Your task to perform on an android device: toggle show notifications on the lock screen Image 0: 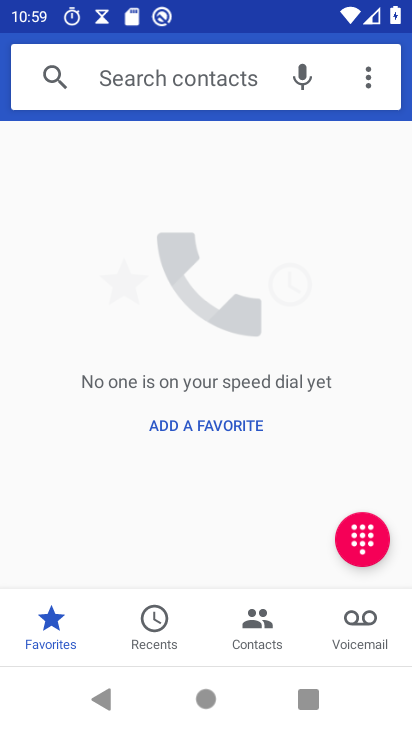
Step 0: press home button
Your task to perform on an android device: toggle show notifications on the lock screen Image 1: 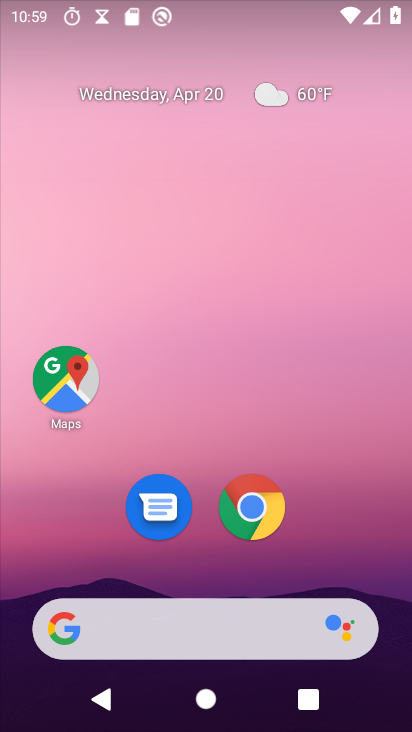
Step 1: drag from (225, 593) to (274, 110)
Your task to perform on an android device: toggle show notifications on the lock screen Image 2: 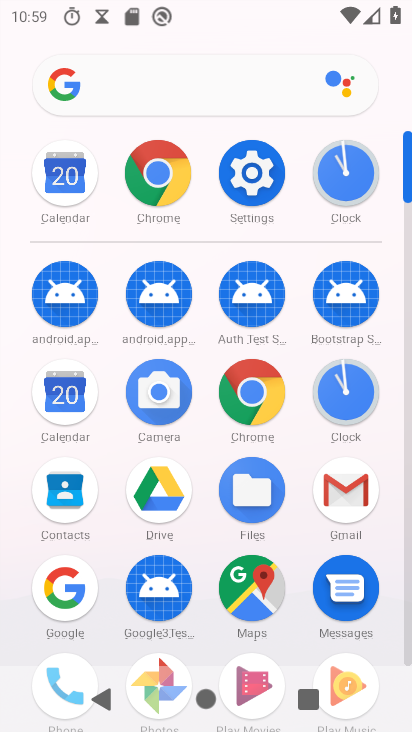
Step 2: click (249, 166)
Your task to perform on an android device: toggle show notifications on the lock screen Image 3: 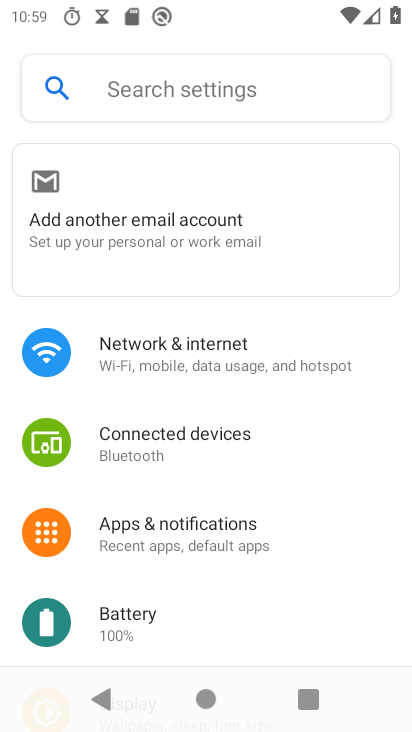
Step 3: drag from (161, 594) to (204, 284)
Your task to perform on an android device: toggle show notifications on the lock screen Image 4: 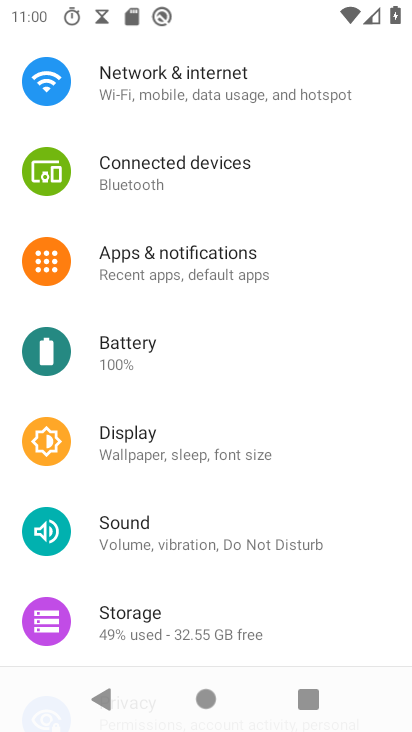
Step 4: click (205, 263)
Your task to perform on an android device: toggle show notifications on the lock screen Image 5: 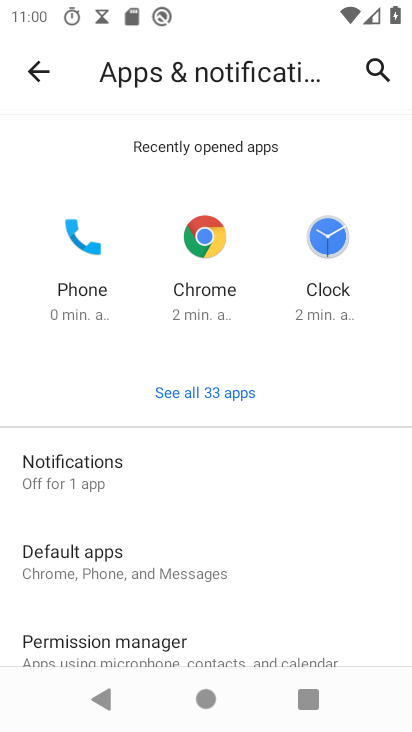
Step 5: drag from (193, 615) to (203, 498)
Your task to perform on an android device: toggle show notifications on the lock screen Image 6: 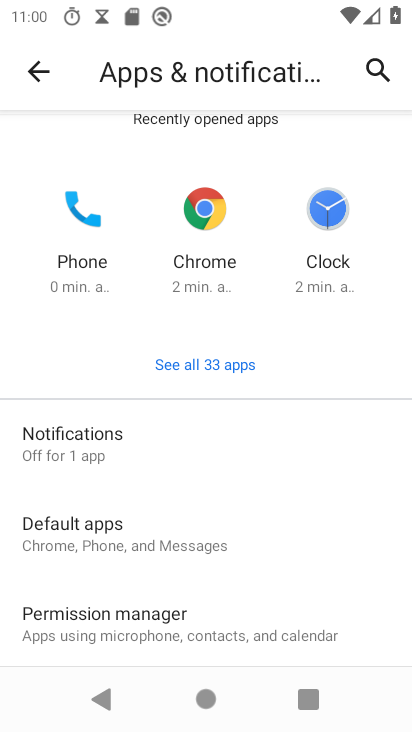
Step 6: click (99, 437)
Your task to perform on an android device: toggle show notifications on the lock screen Image 7: 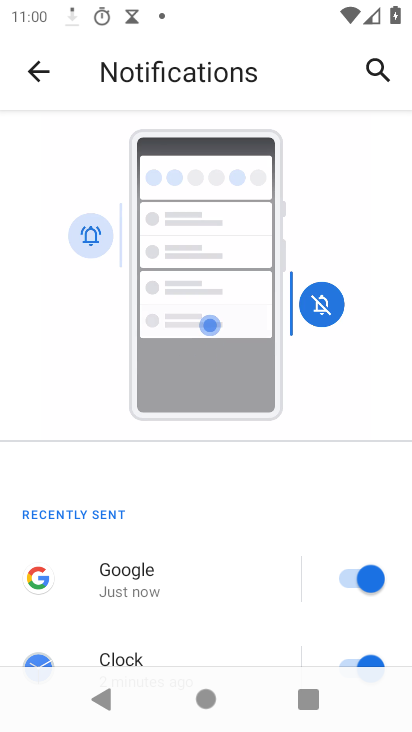
Step 7: drag from (153, 619) to (265, 345)
Your task to perform on an android device: toggle show notifications on the lock screen Image 8: 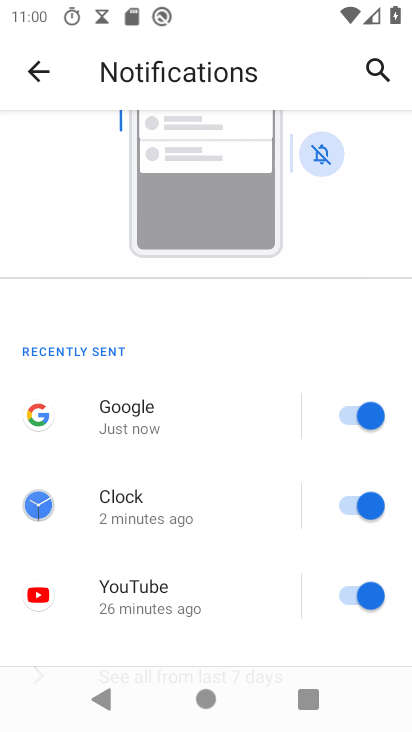
Step 8: drag from (230, 557) to (308, 360)
Your task to perform on an android device: toggle show notifications on the lock screen Image 9: 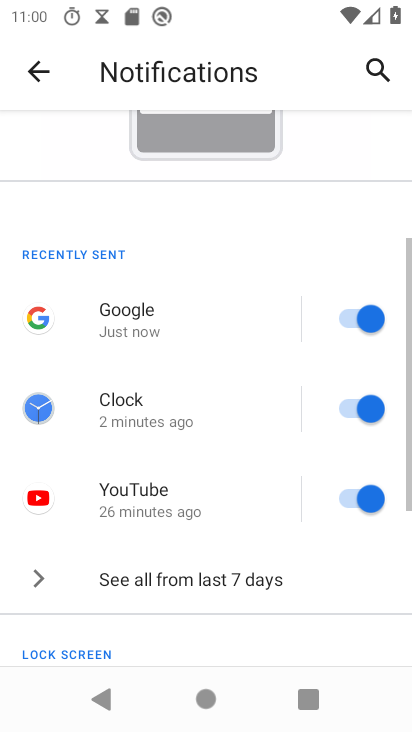
Step 9: drag from (205, 590) to (287, 336)
Your task to perform on an android device: toggle show notifications on the lock screen Image 10: 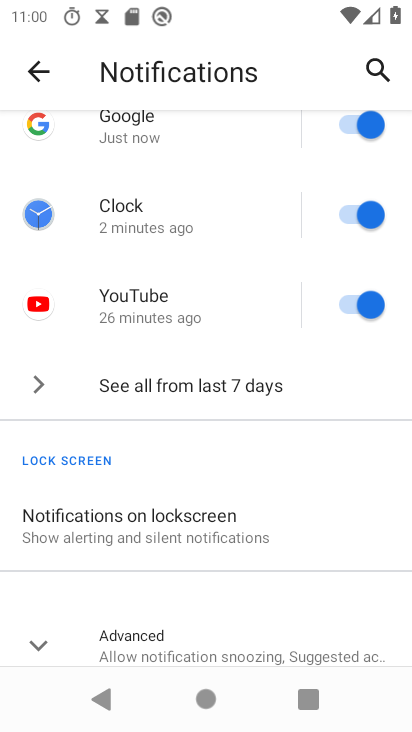
Step 10: click (121, 527)
Your task to perform on an android device: toggle show notifications on the lock screen Image 11: 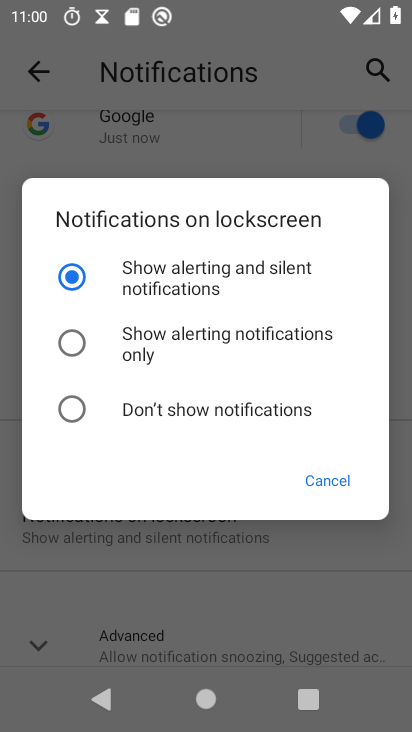
Step 11: task complete